Your task to perform on an android device: Open wifi settings Image 0: 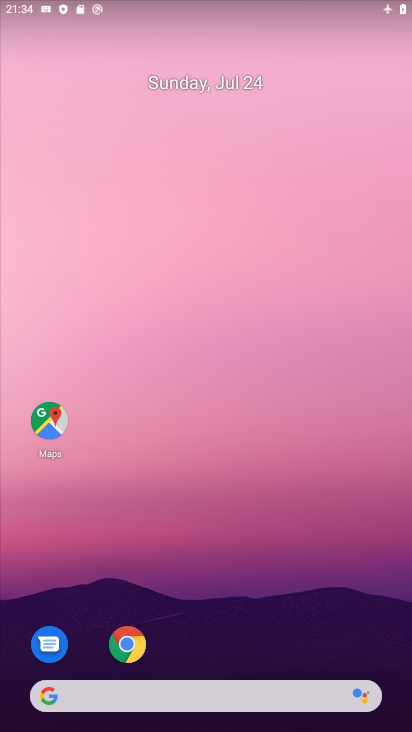
Step 0: drag from (390, 666) to (344, 97)
Your task to perform on an android device: Open wifi settings Image 1: 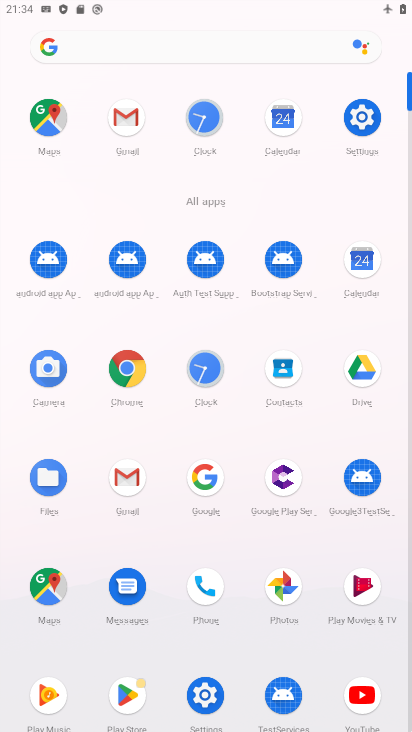
Step 1: click (204, 697)
Your task to perform on an android device: Open wifi settings Image 2: 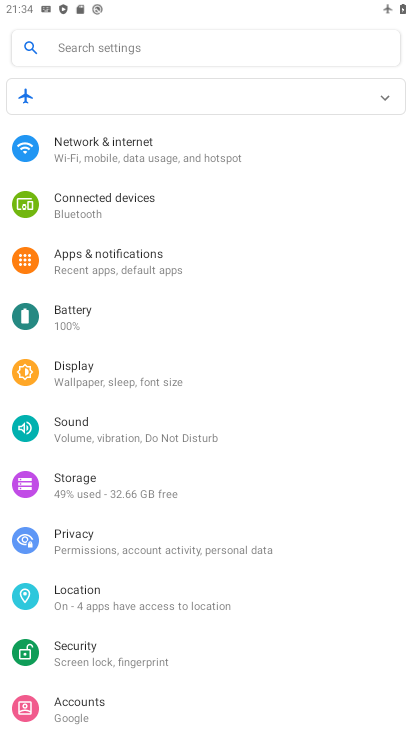
Step 2: click (63, 141)
Your task to perform on an android device: Open wifi settings Image 3: 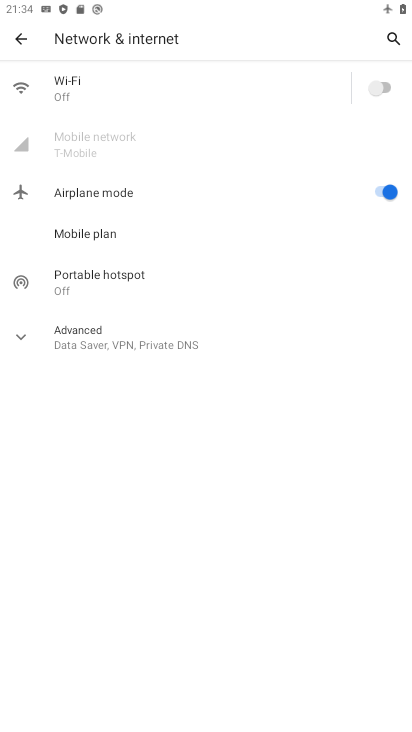
Step 3: click (47, 80)
Your task to perform on an android device: Open wifi settings Image 4: 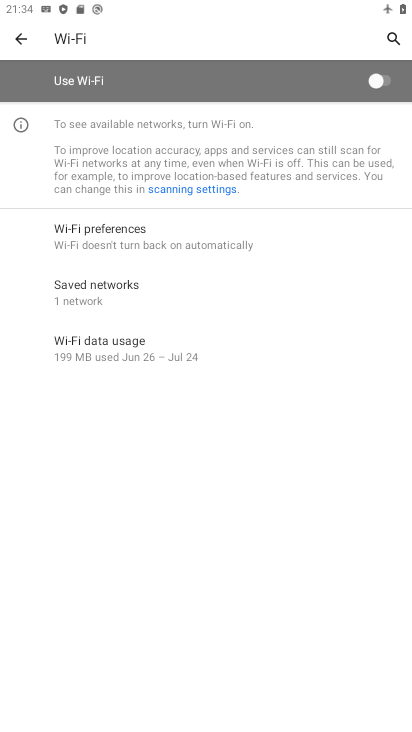
Step 4: task complete